Your task to perform on an android device: Search for sushi restaurants on Maps Image 0: 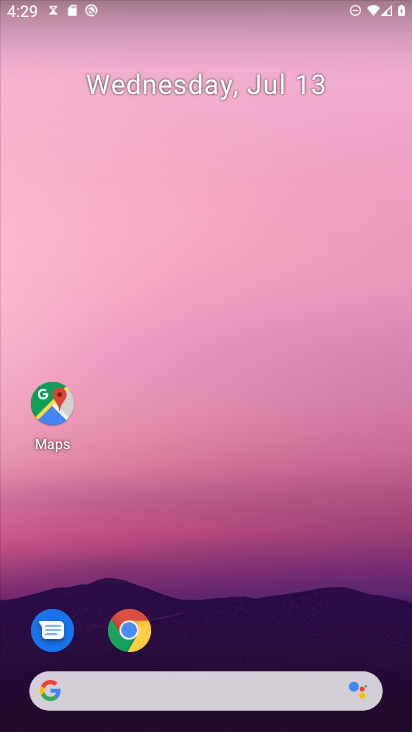
Step 0: click (55, 399)
Your task to perform on an android device: Search for sushi restaurants on Maps Image 1: 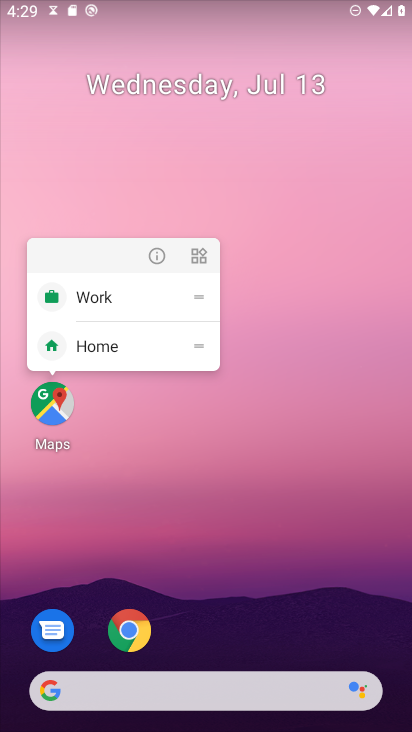
Step 1: click (43, 410)
Your task to perform on an android device: Search for sushi restaurants on Maps Image 2: 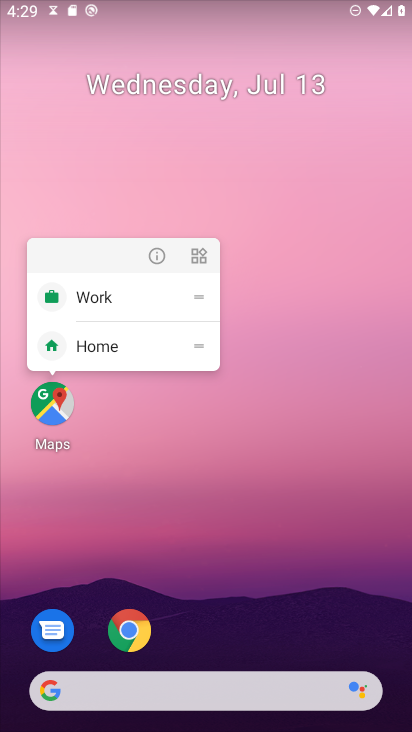
Step 2: click (46, 391)
Your task to perform on an android device: Search for sushi restaurants on Maps Image 3: 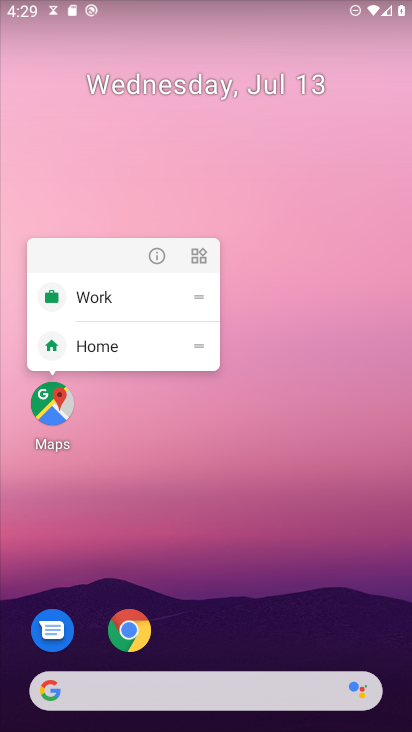
Step 3: click (46, 391)
Your task to perform on an android device: Search for sushi restaurants on Maps Image 4: 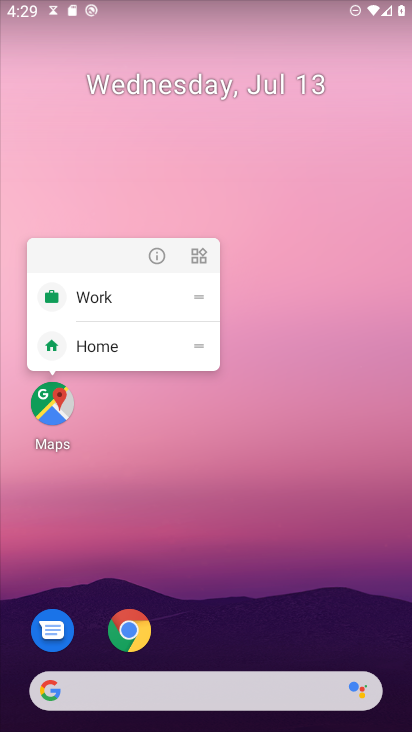
Step 4: click (303, 468)
Your task to perform on an android device: Search for sushi restaurants on Maps Image 5: 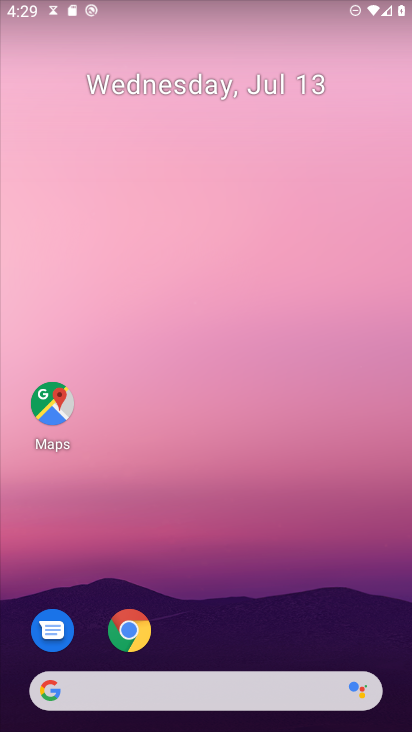
Step 5: click (44, 416)
Your task to perform on an android device: Search for sushi restaurants on Maps Image 6: 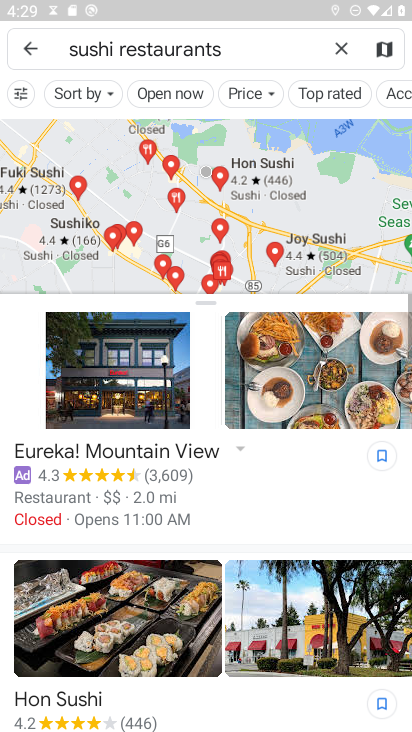
Step 6: click (338, 45)
Your task to perform on an android device: Search for sushi restaurants on Maps Image 7: 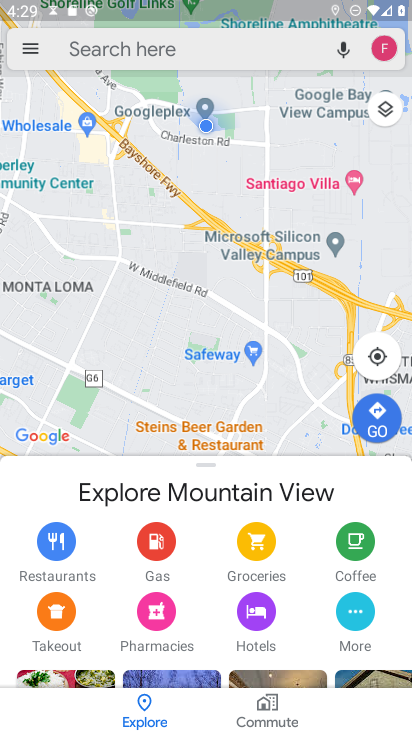
Step 7: type " sushi restaurants"
Your task to perform on an android device: Search for sushi restaurants on Maps Image 8: 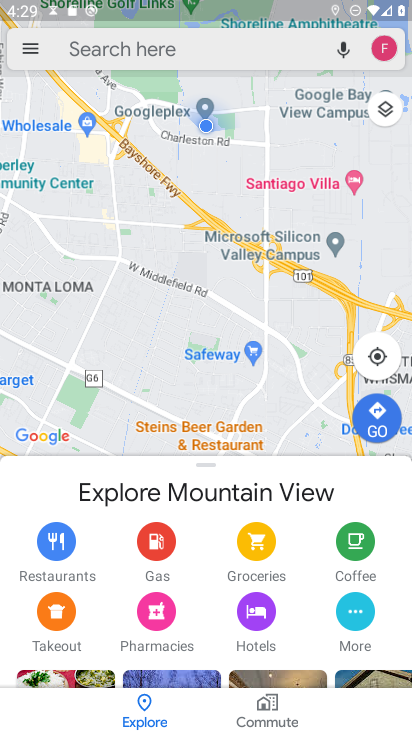
Step 8: click (84, 49)
Your task to perform on an android device: Search for sushi restaurants on Maps Image 9: 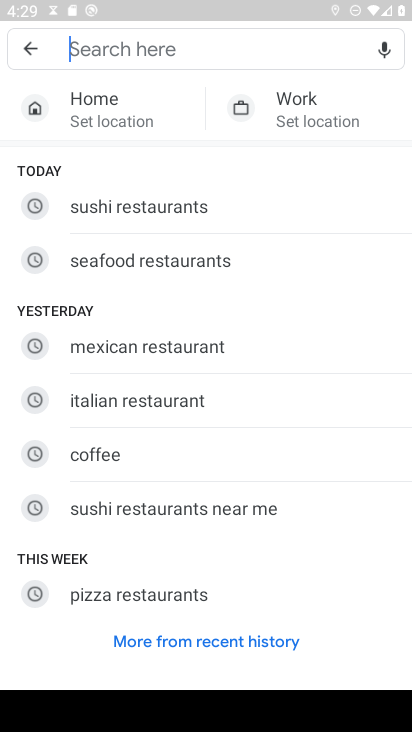
Step 9: click (84, 49)
Your task to perform on an android device: Search for sushi restaurants on Maps Image 10: 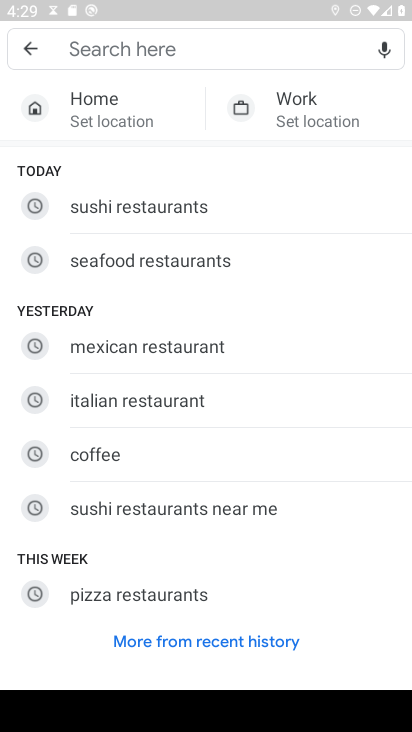
Step 10: click (110, 46)
Your task to perform on an android device: Search for sushi restaurants on Maps Image 11: 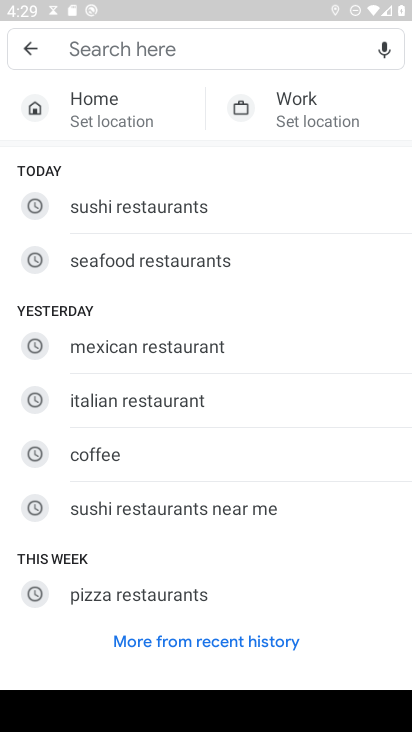
Step 11: type " sushi restaurants"
Your task to perform on an android device: Search for sushi restaurants on Maps Image 12: 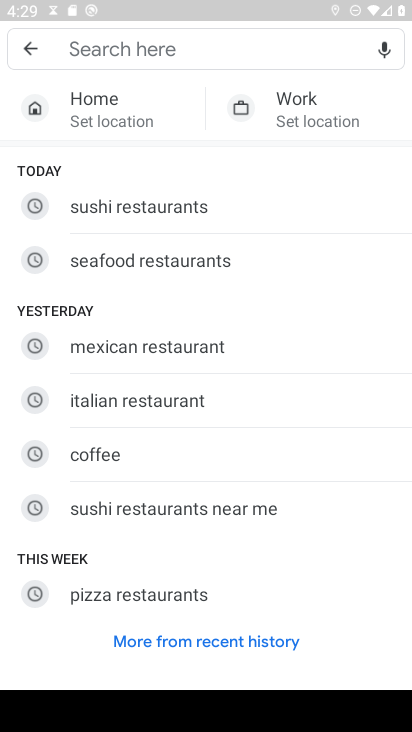
Step 12: click (119, 43)
Your task to perform on an android device: Search for sushi restaurants on Maps Image 13: 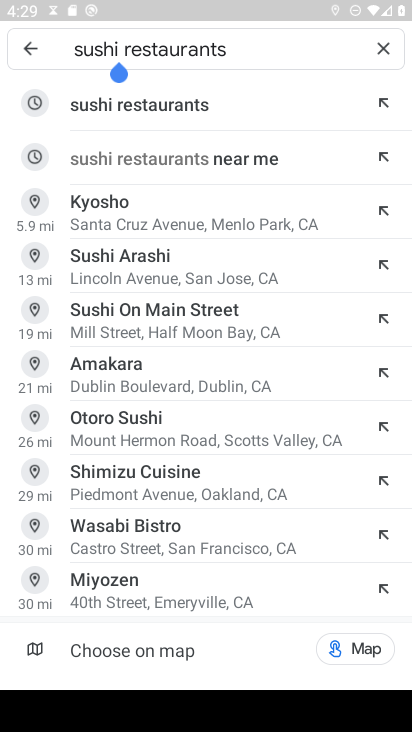
Step 13: press enter
Your task to perform on an android device: Search for sushi restaurants on Maps Image 14: 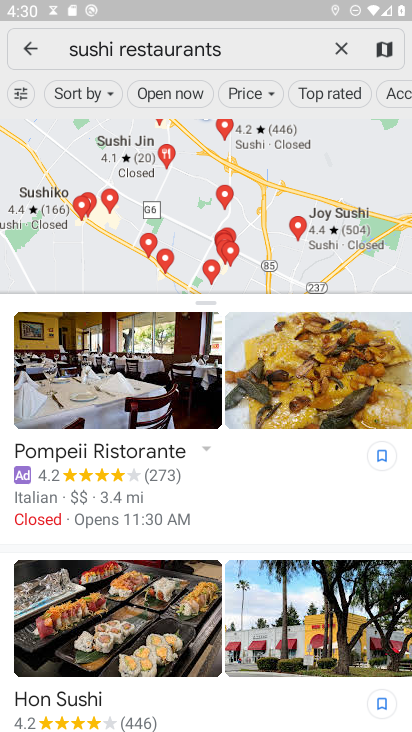
Step 14: task complete